Your task to perform on an android device: Search for seafood restaurants on Google Maps Image 0: 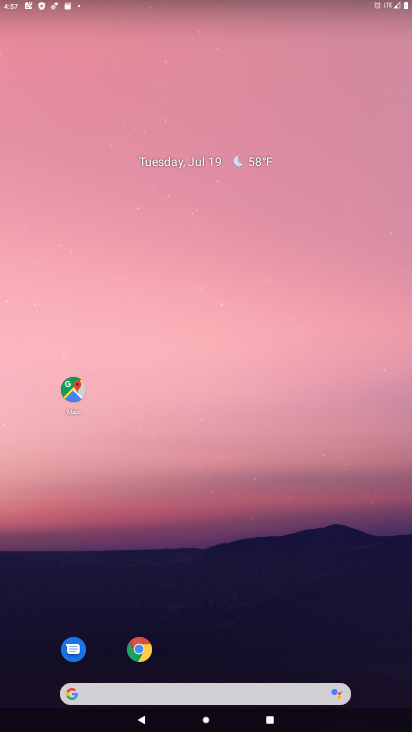
Step 0: click (76, 394)
Your task to perform on an android device: Search for seafood restaurants on Google Maps Image 1: 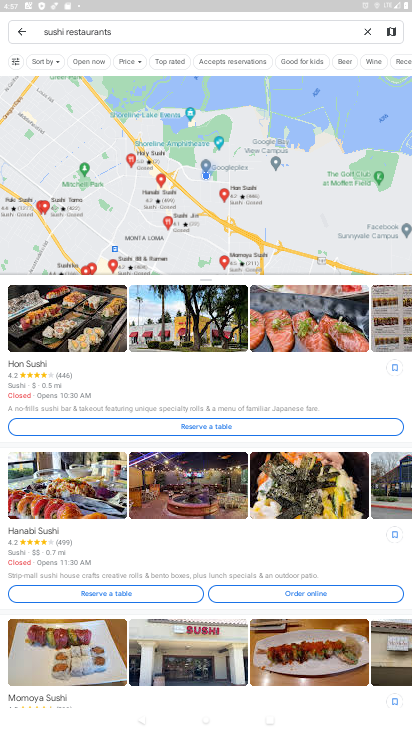
Step 1: click (14, 29)
Your task to perform on an android device: Search for seafood restaurants on Google Maps Image 2: 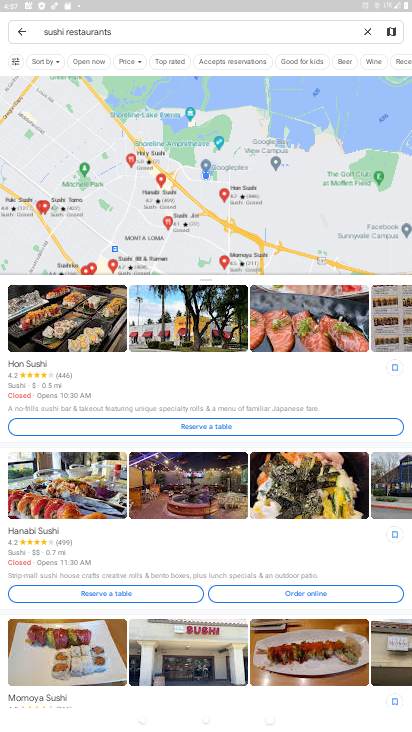
Step 2: click (94, 31)
Your task to perform on an android device: Search for seafood restaurants on Google Maps Image 3: 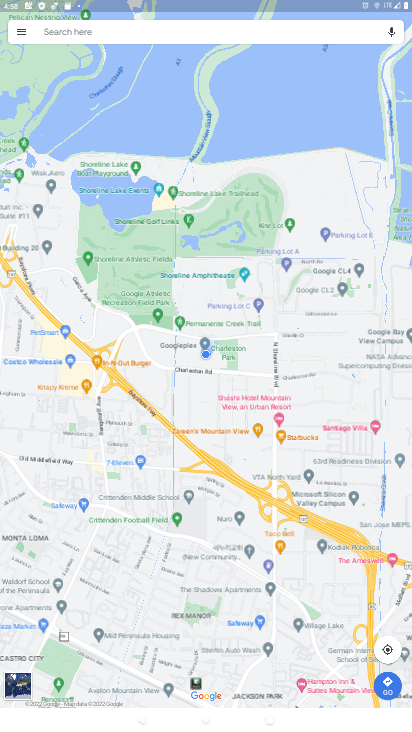
Step 3: click (230, 34)
Your task to perform on an android device: Search for seafood restaurants on Google Maps Image 4: 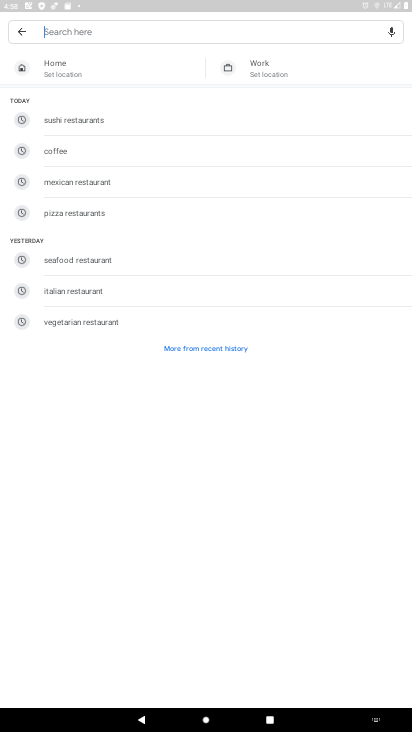
Step 4: type "seafood restaurants"
Your task to perform on an android device: Search for seafood restaurants on Google Maps Image 5: 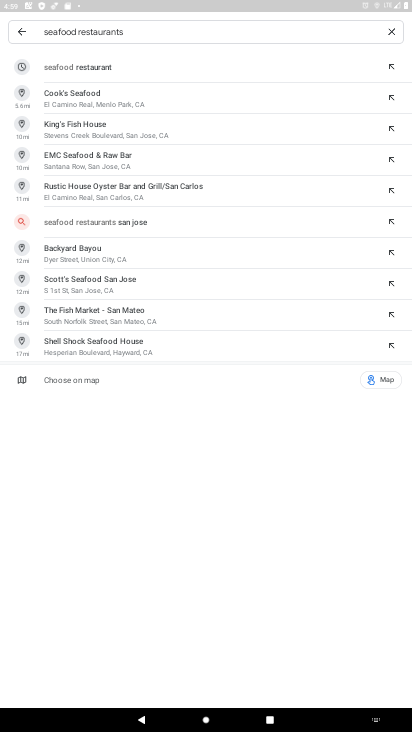
Step 5: click (113, 60)
Your task to perform on an android device: Search for seafood restaurants on Google Maps Image 6: 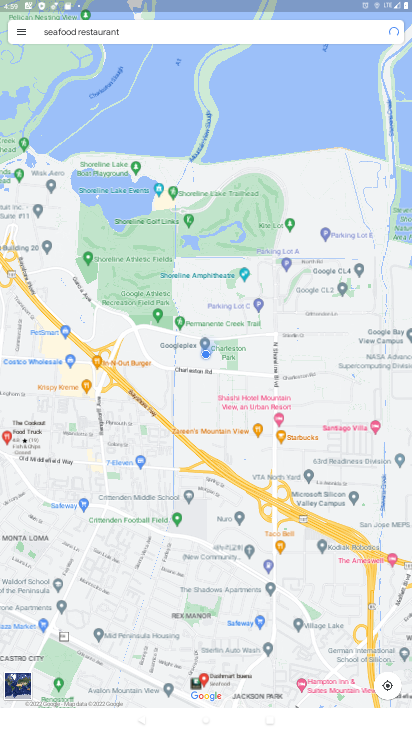
Step 6: task complete